Your task to perform on an android device: Open notification settings Image 0: 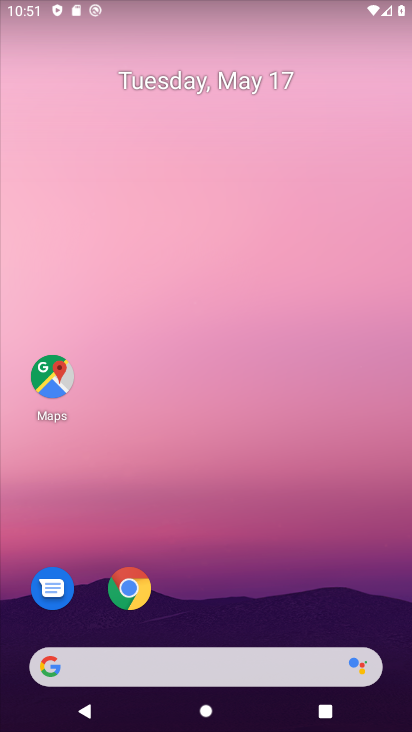
Step 0: drag from (265, 595) to (259, 218)
Your task to perform on an android device: Open notification settings Image 1: 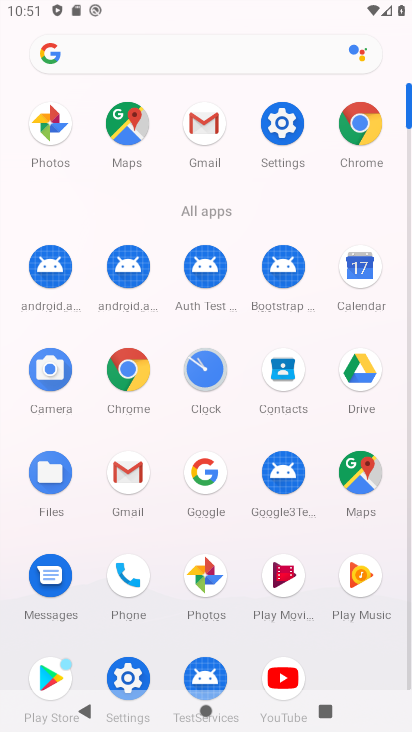
Step 1: click (289, 125)
Your task to perform on an android device: Open notification settings Image 2: 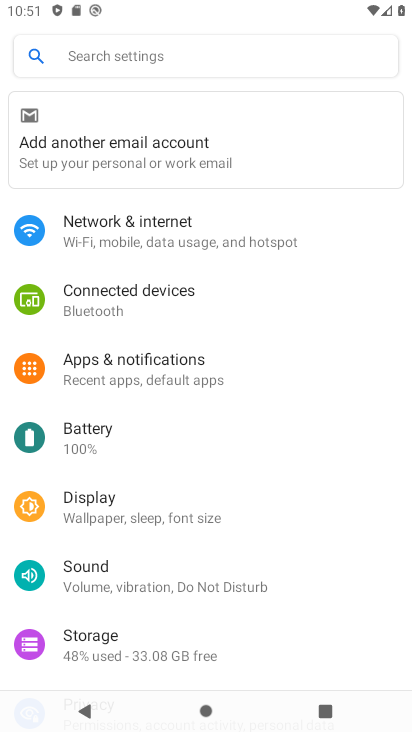
Step 2: click (214, 366)
Your task to perform on an android device: Open notification settings Image 3: 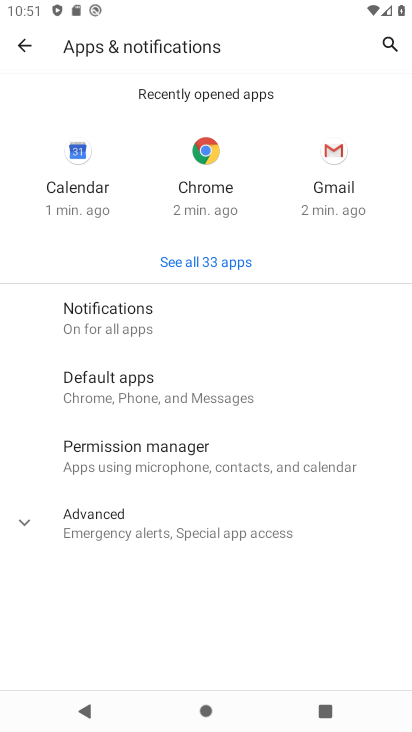
Step 3: click (169, 313)
Your task to perform on an android device: Open notification settings Image 4: 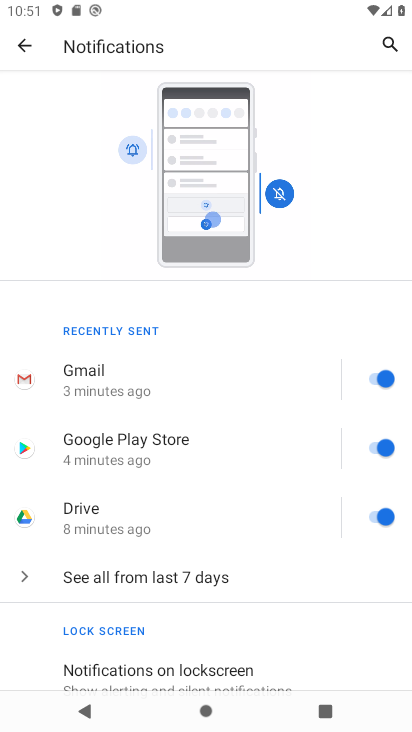
Step 4: task complete